Your task to perform on an android device: add a label to a message in the gmail app Image 0: 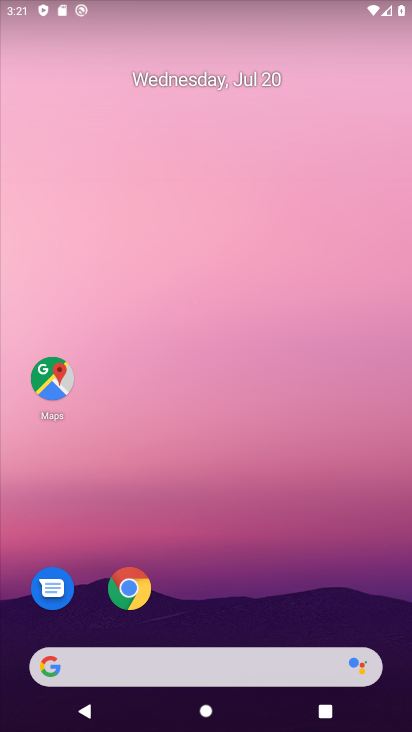
Step 0: drag from (310, 488) to (330, 143)
Your task to perform on an android device: add a label to a message in the gmail app Image 1: 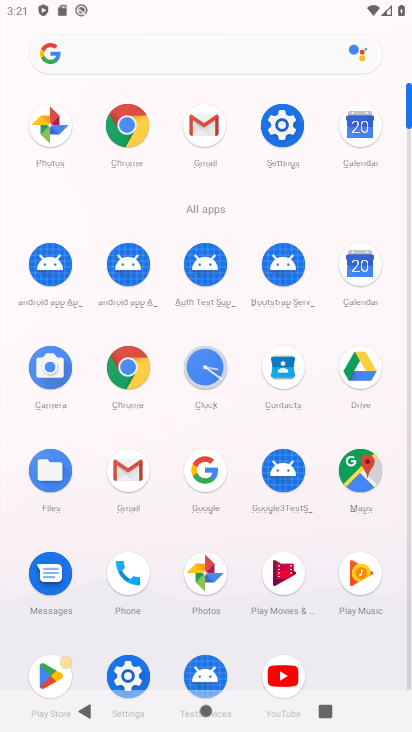
Step 1: click (135, 464)
Your task to perform on an android device: add a label to a message in the gmail app Image 2: 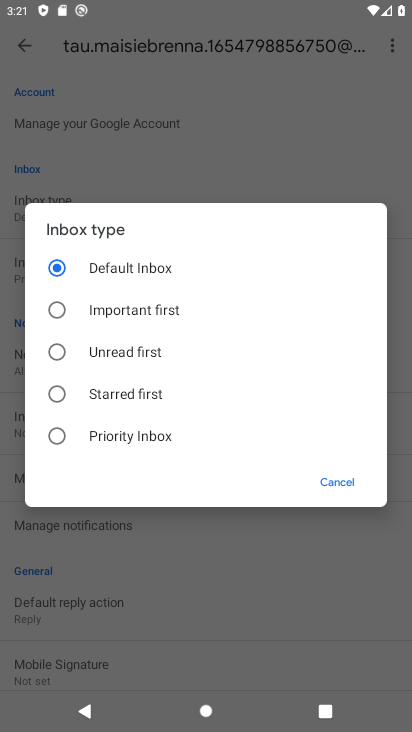
Step 2: press home button
Your task to perform on an android device: add a label to a message in the gmail app Image 3: 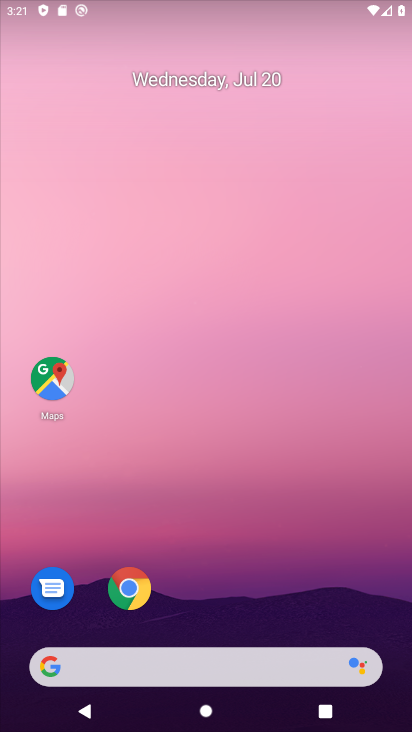
Step 3: drag from (273, 599) to (334, 121)
Your task to perform on an android device: add a label to a message in the gmail app Image 4: 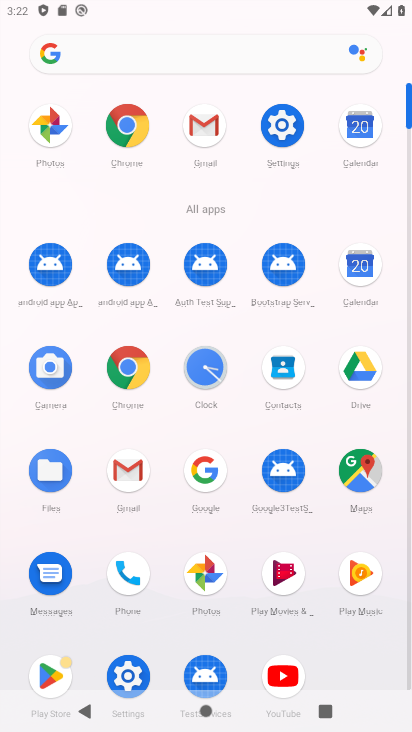
Step 4: click (211, 115)
Your task to perform on an android device: add a label to a message in the gmail app Image 5: 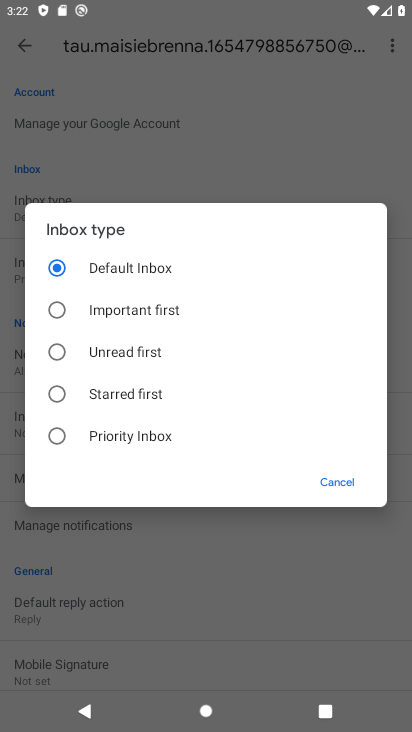
Step 5: click (187, 140)
Your task to perform on an android device: add a label to a message in the gmail app Image 6: 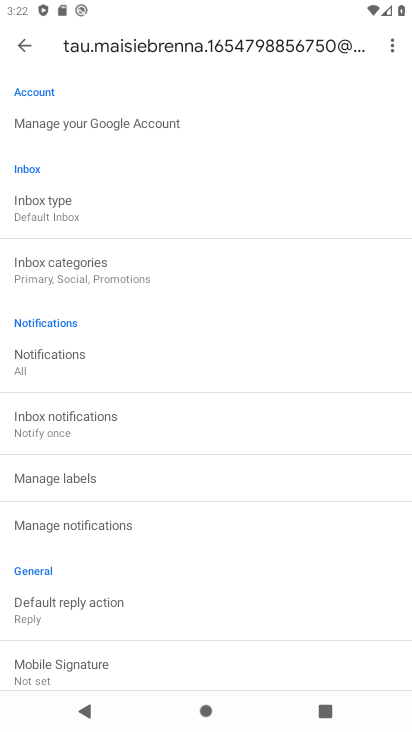
Step 6: click (30, 44)
Your task to perform on an android device: add a label to a message in the gmail app Image 7: 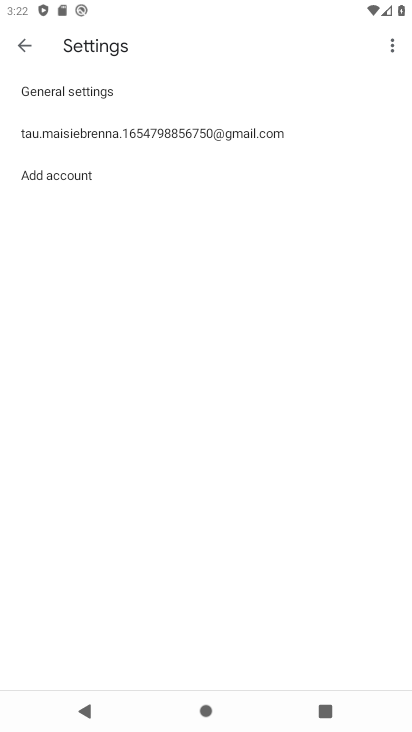
Step 7: click (30, 44)
Your task to perform on an android device: add a label to a message in the gmail app Image 8: 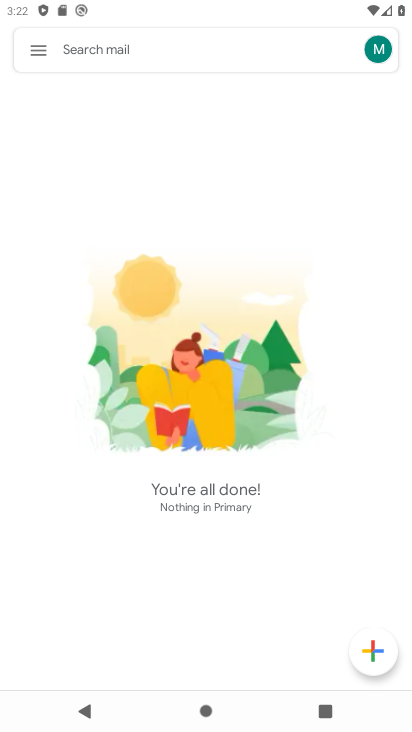
Step 8: click (30, 44)
Your task to perform on an android device: add a label to a message in the gmail app Image 9: 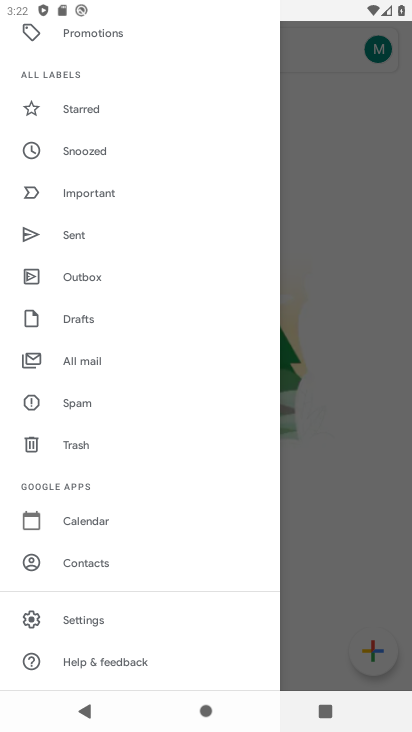
Step 9: click (96, 359)
Your task to perform on an android device: add a label to a message in the gmail app Image 10: 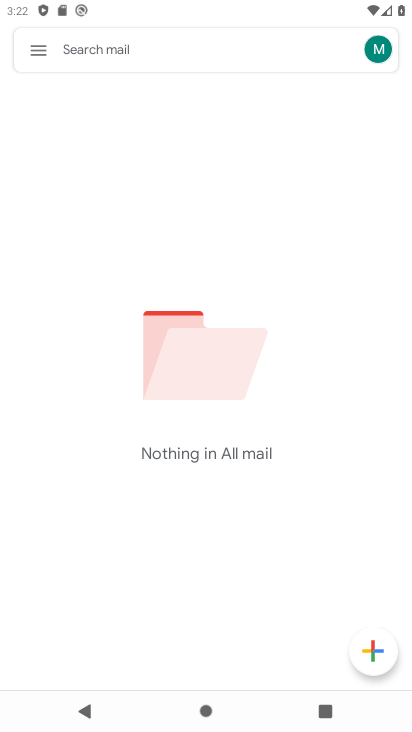
Step 10: task complete